Your task to perform on an android device: add a contact in the contacts app Image 0: 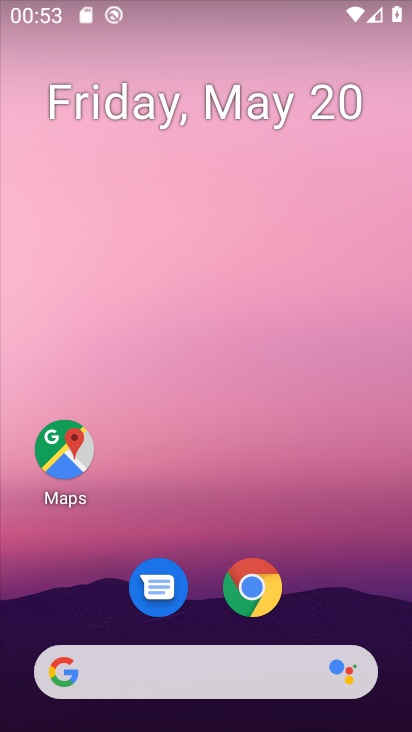
Step 0: drag from (375, 614) to (379, 236)
Your task to perform on an android device: add a contact in the contacts app Image 1: 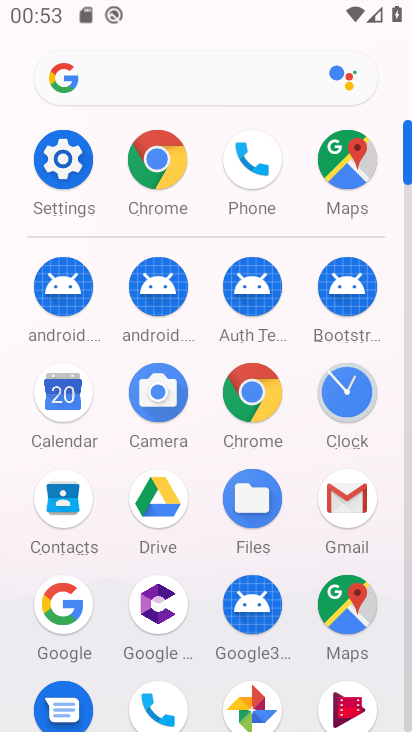
Step 1: click (67, 507)
Your task to perform on an android device: add a contact in the contacts app Image 2: 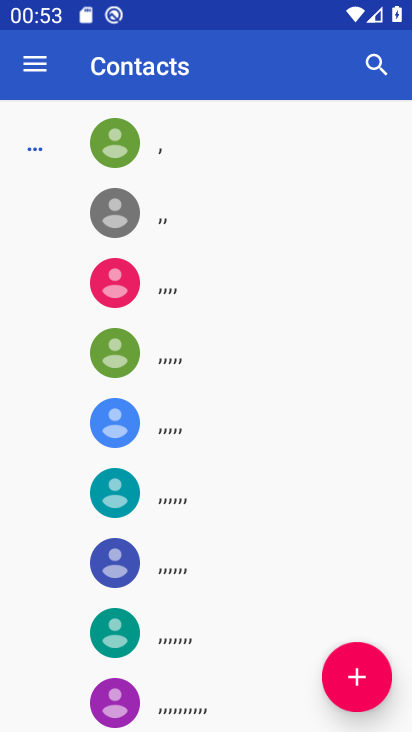
Step 2: click (363, 678)
Your task to perform on an android device: add a contact in the contacts app Image 3: 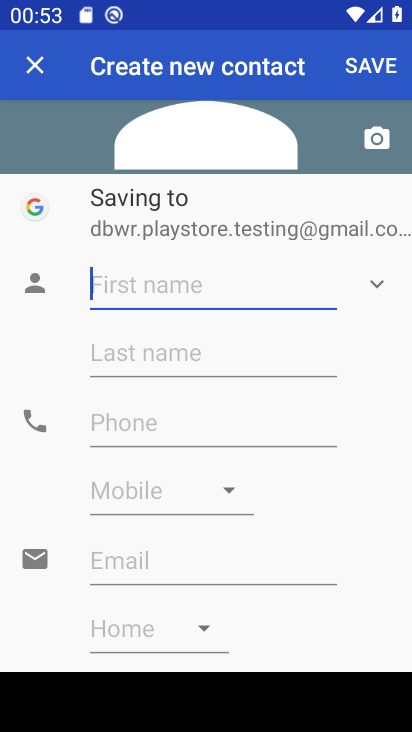
Step 3: click (242, 295)
Your task to perform on an android device: add a contact in the contacts app Image 4: 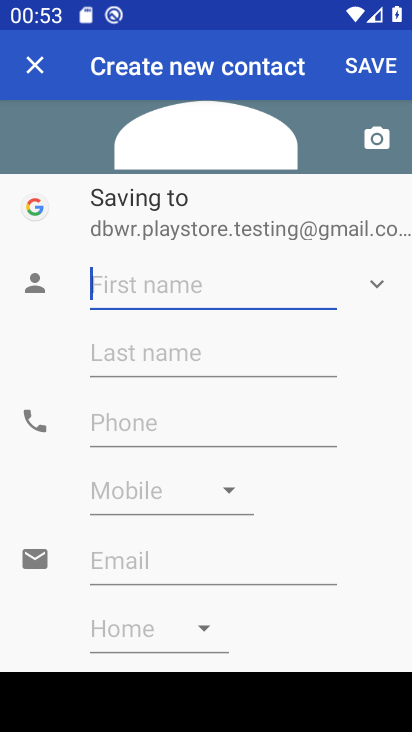
Step 4: type "luv"
Your task to perform on an android device: add a contact in the contacts app Image 5: 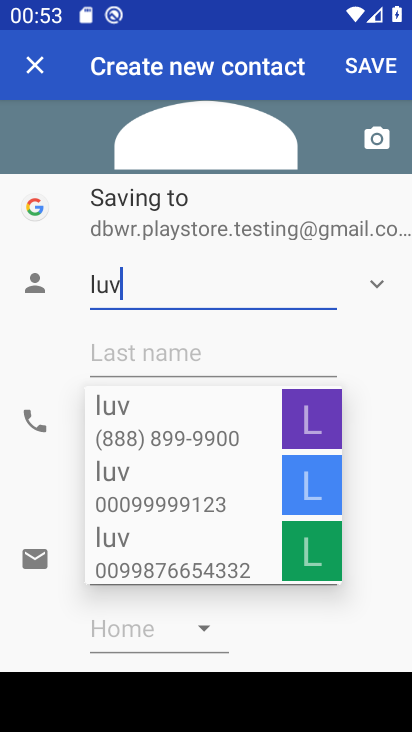
Step 5: click (386, 429)
Your task to perform on an android device: add a contact in the contacts app Image 6: 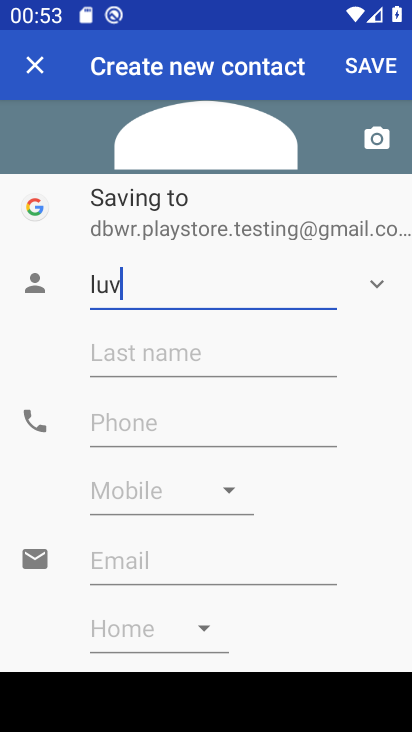
Step 6: click (233, 420)
Your task to perform on an android device: add a contact in the contacts app Image 7: 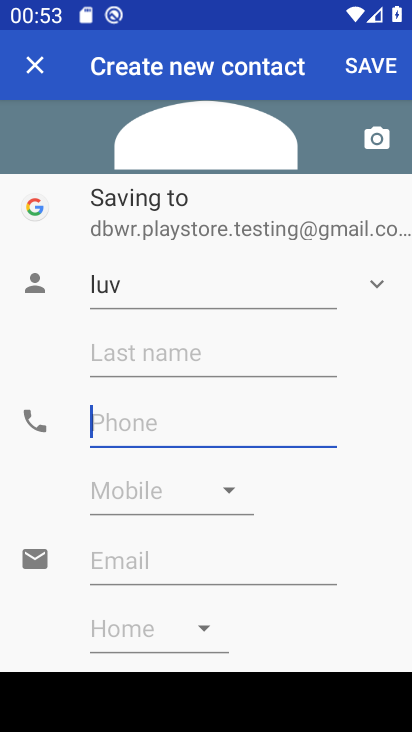
Step 7: type "1234567890"
Your task to perform on an android device: add a contact in the contacts app Image 8: 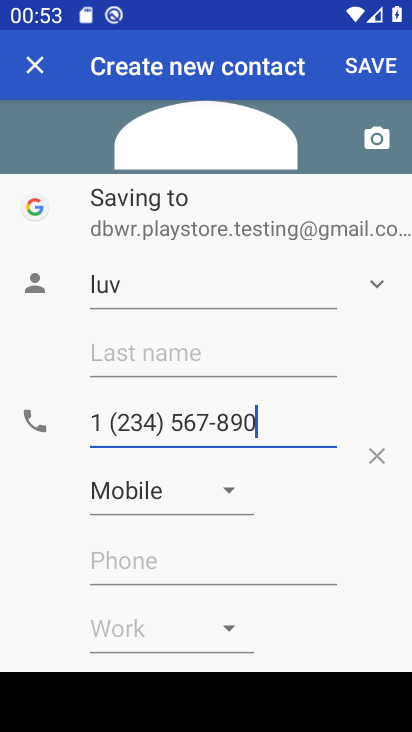
Step 8: click (384, 77)
Your task to perform on an android device: add a contact in the contacts app Image 9: 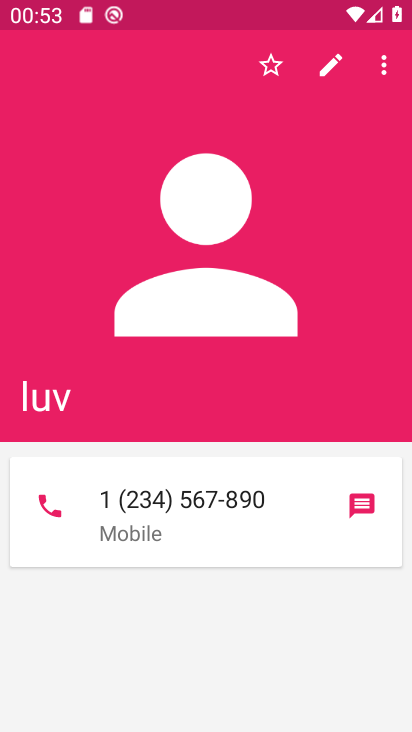
Step 9: task complete